Your task to perform on an android device: toggle improve location accuracy Image 0: 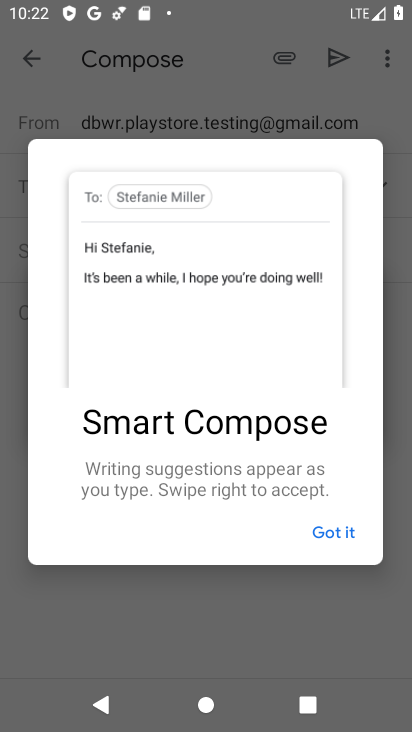
Step 0: press home button
Your task to perform on an android device: toggle improve location accuracy Image 1: 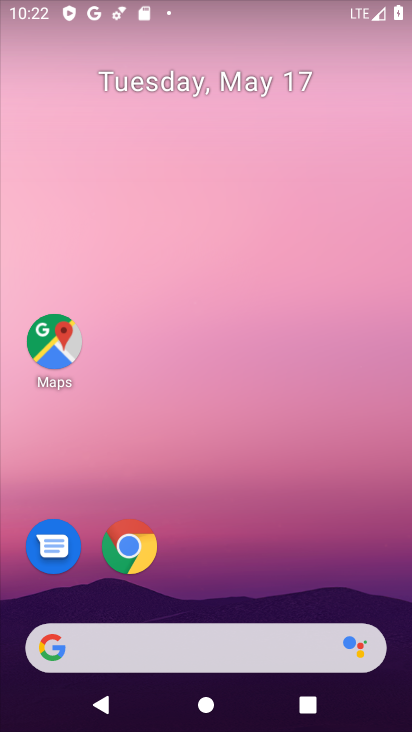
Step 1: drag from (197, 597) to (241, 73)
Your task to perform on an android device: toggle improve location accuracy Image 2: 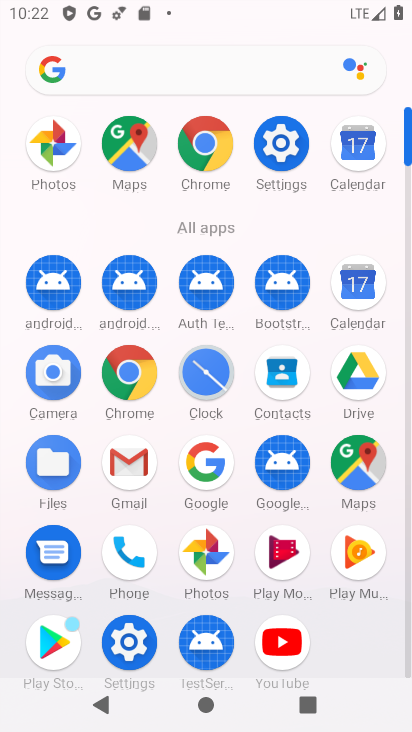
Step 2: click (125, 638)
Your task to perform on an android device: toggle improve location accuracy Image 3: 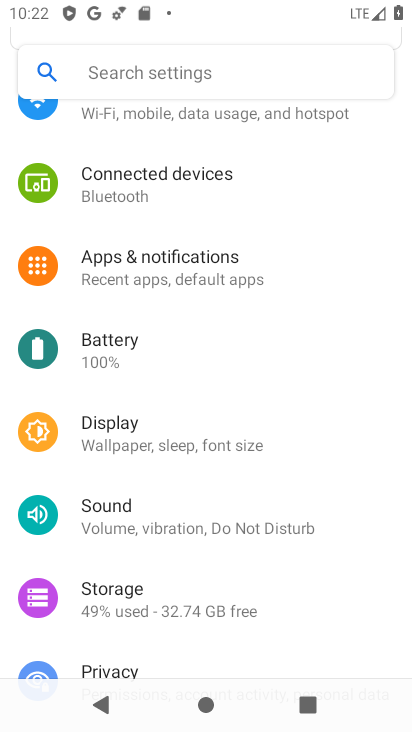
Step 3: drag from (162, 624) to (206, 296)
Your task to perform on an android device: toggle improve location accuracy Image 4: 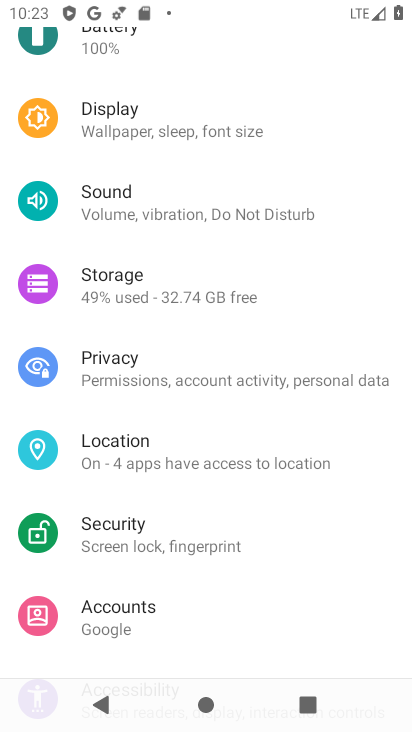
Step 4: click (129, 462)
Your task to perform on an android device: toggle improve location accuracy Image 5: 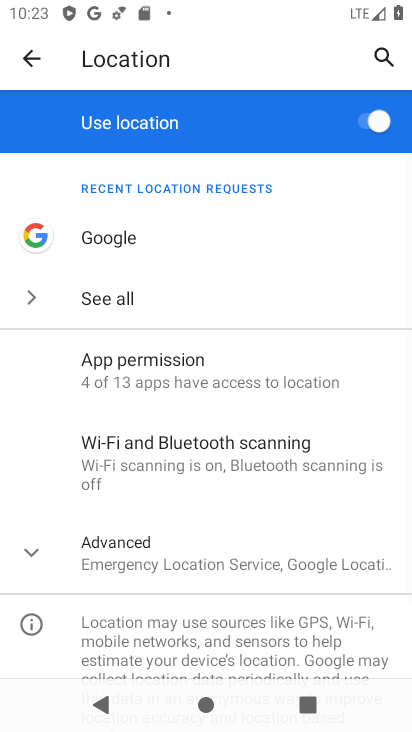
Step 5: click (152, 563)
Your task to perform on an android device: toggle improve location accuracy Image 6: 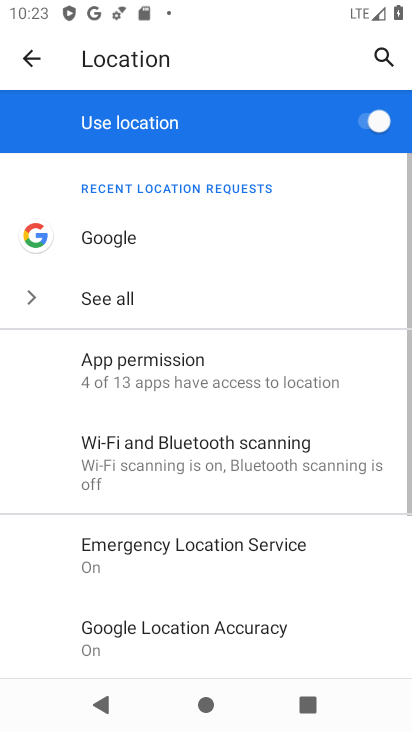
Step 6: drag from (181, 555) to (215, 468)
Your task to perform on an android device: toggle improve location accuracy Image 7: 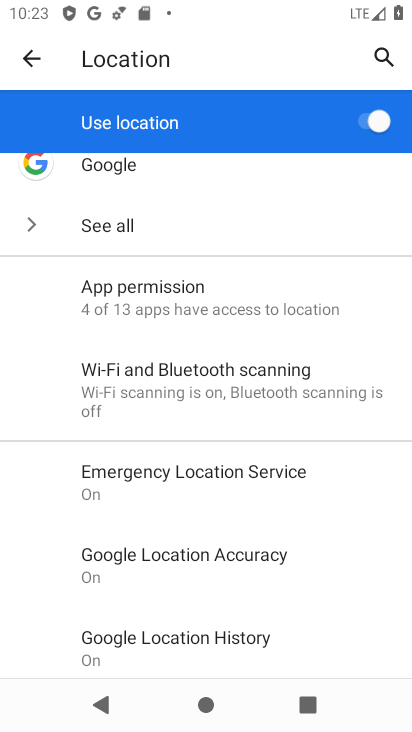
Step 7: click (200, 564)
Your task to perform on an android device: toggle improve location accuracy Image 8: 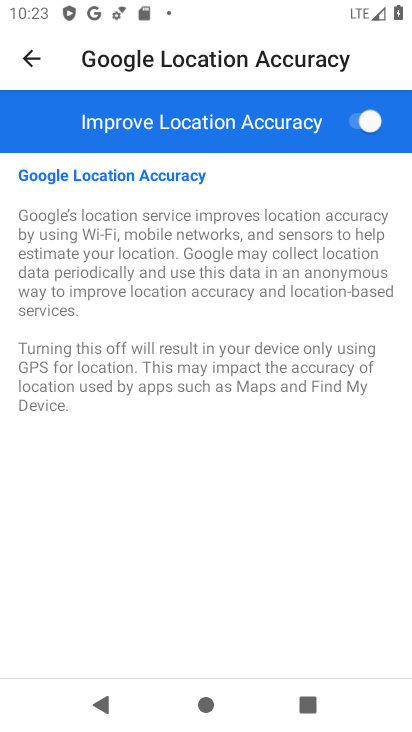
Step 8: click (351, 129)
Your task to perform on an android device: toggle improve location accuracy Image 9: 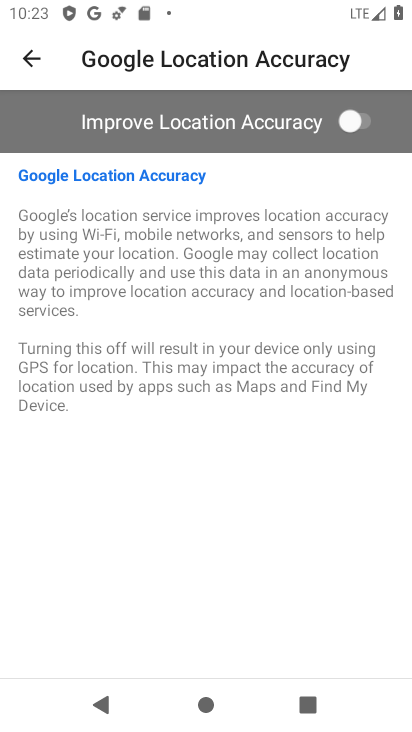
Step 9: task complete